Your task to perform on an android device: create a new album in the google photos Image 0: 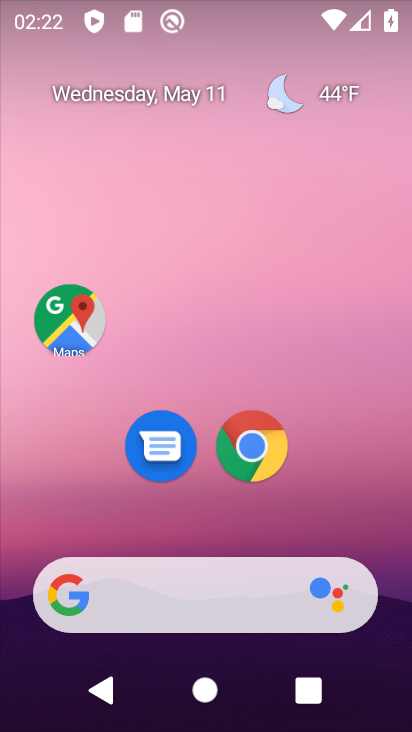
Step 0: drag from (350, 533) to (218, 173)
Your task to perform on an android device: create a new album in the google photos Image 1: 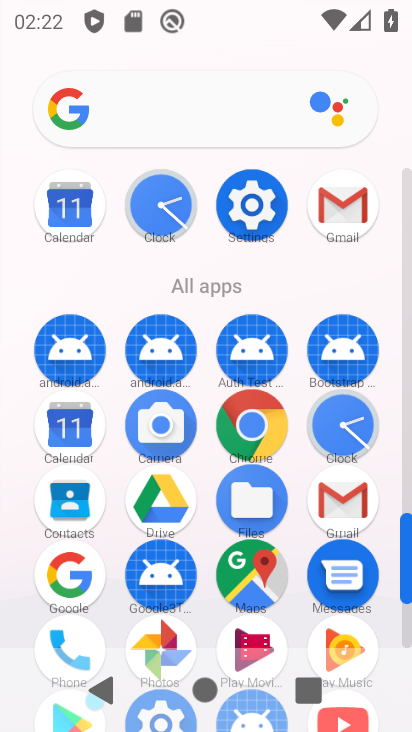
Step 1: drag from (210, 467) to (193, 260)
Your task to perform on an android device: create a new album in the google photos Image 2: 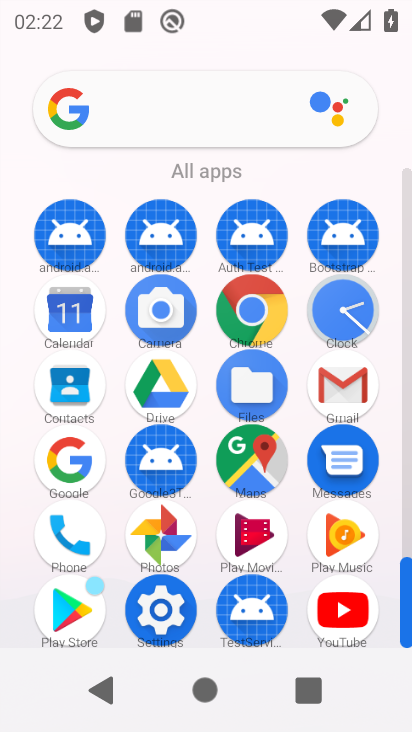
Step 2: click (165, 546)
Your task to perform on an android device: create a new album in the google photos Image 3: 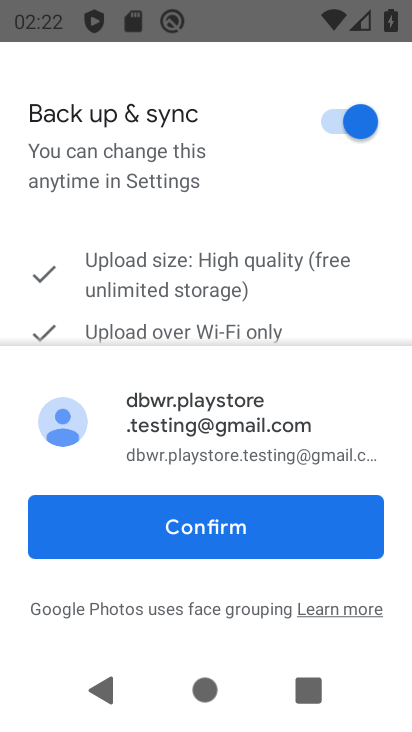
Step 3: click (232, 542)
Your task to perform on an android device: create a new album in the google photos Image 4: 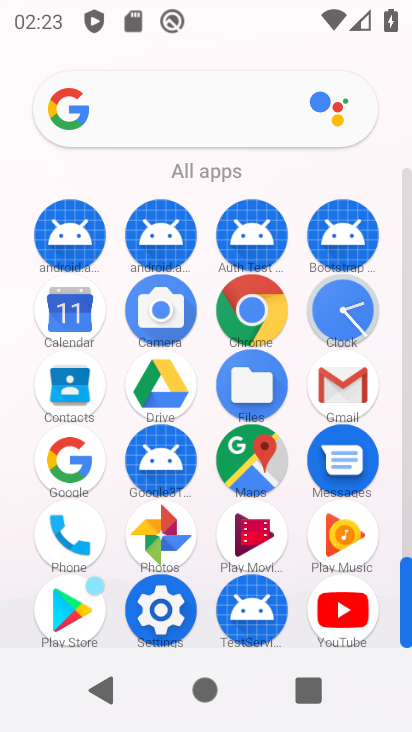
Step 4: click (174, 535)
Your task to perform on an android device: create a new album in the google photos Image 5: 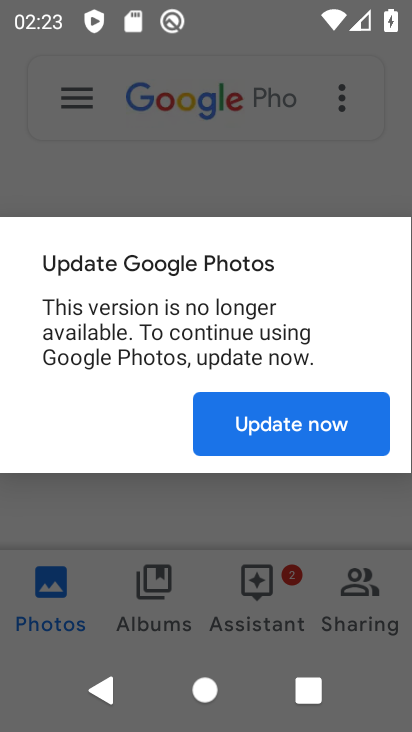
Step 5: click (318, 439)
Your task to perform on an android device: create a new album in the google photos Image 6: 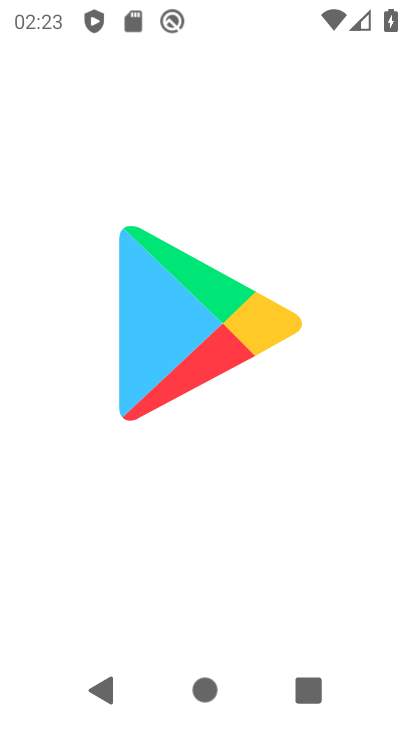
Step 6: press back button
Your task to perform on an android device: create a new album in the google photos Image 7: 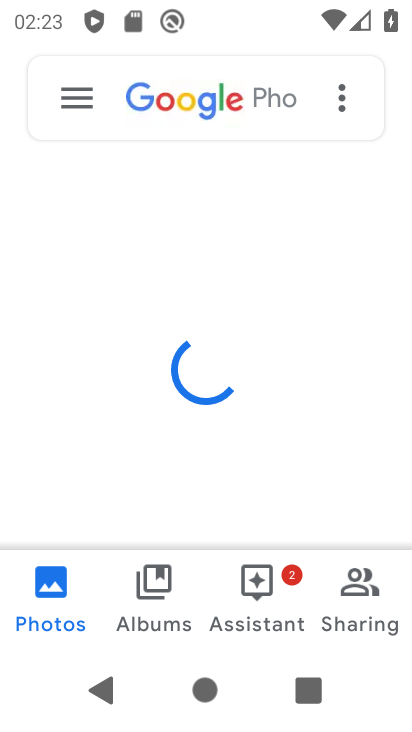
Step 7: click (163, 574)
Your task to perform on an android device: create a new album in the google photos Image 8: 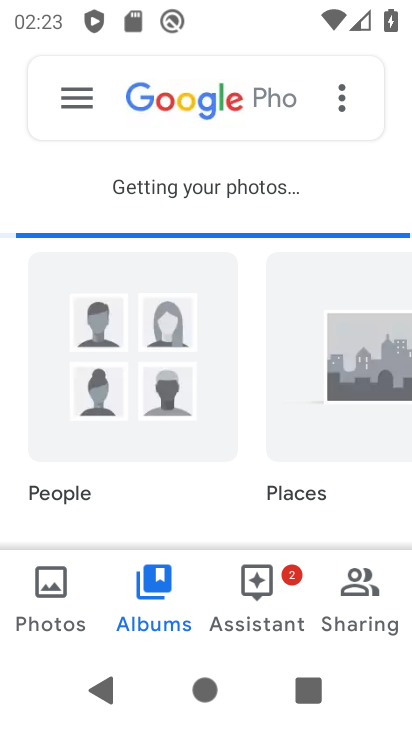
Step 8: drag from (204, 480) to (173, 107)
Your task to perform on an android device: create a new album in the google photos Image 9: 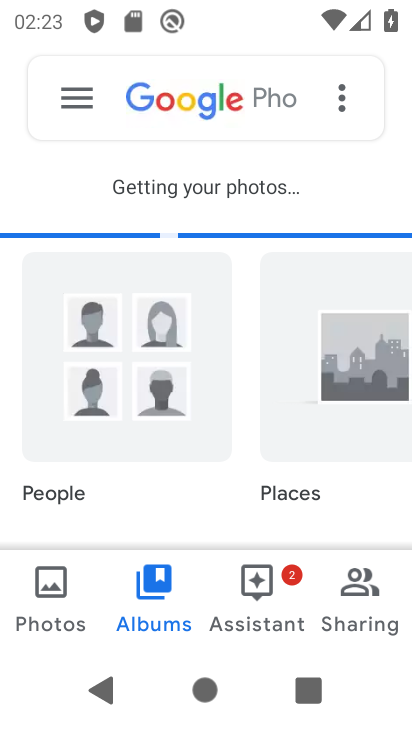
Step 9: drag from (204, 527) to (178, 95)
Your task to perform on an android device: create a new album in the google photos Image 10: 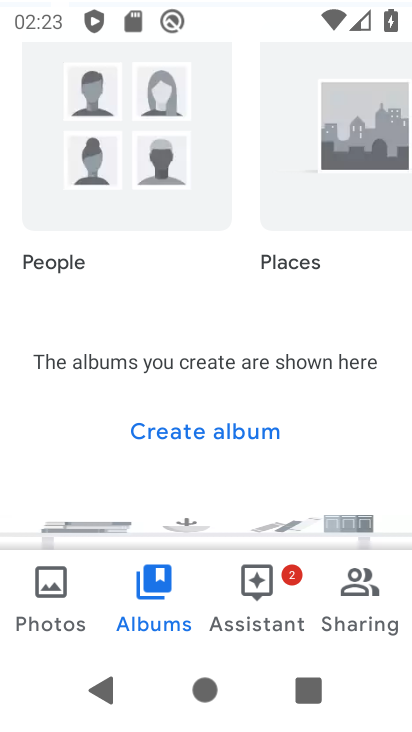
Step 10: click (184, 439)
Your task to perform on an android device: create a new album in the google photos Image 11: 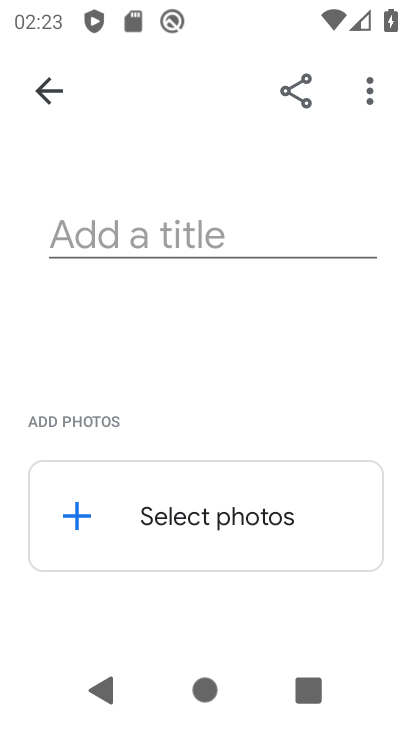
Step 11: click (138, 229)
Your task to perform on an android device: create a new album in the google photos Image 12: 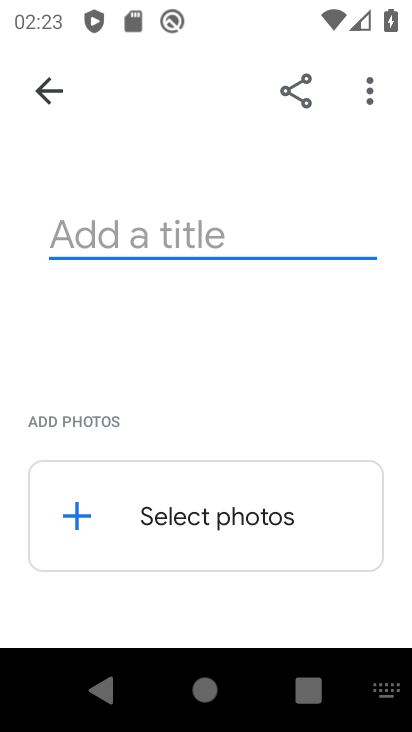
Step 12: type "jhvweh"
Your task to perform on an android device: create a new album in the google photos Image 13: 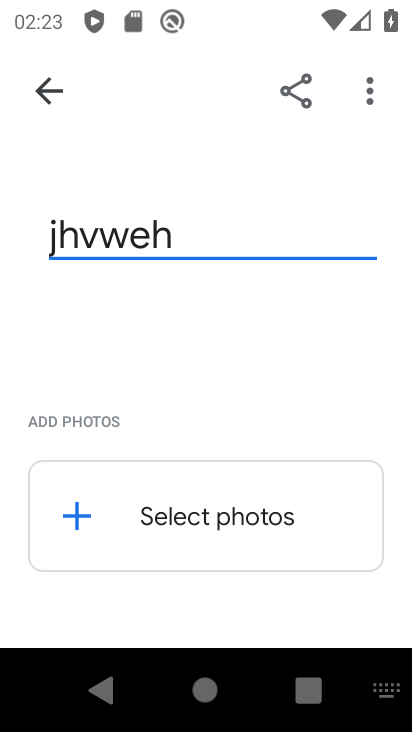
Step 13: click (344, 481)
Your task to perform on an android device: create a new album in the google photos Image 14: 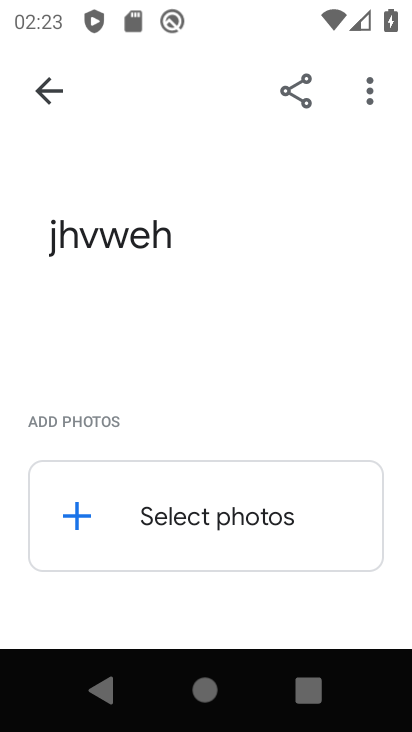
Step 14: click (344, 481)
Your task to perform on an android device: create a new album in the google photos Image 15: 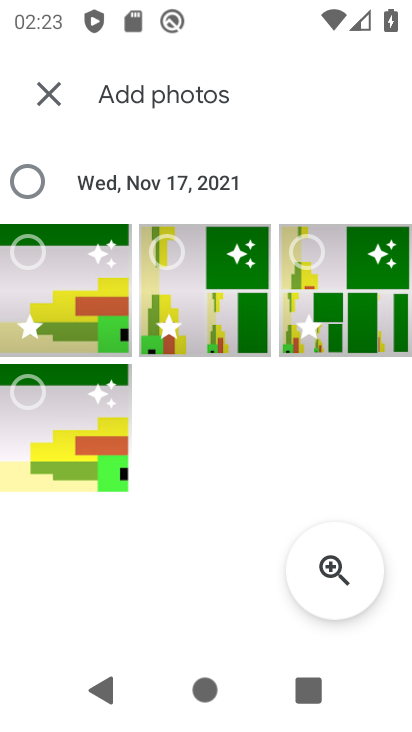
Step 15: click (36, 182)
Your task to perform on an android device: create a new album in the google photos Image 16: 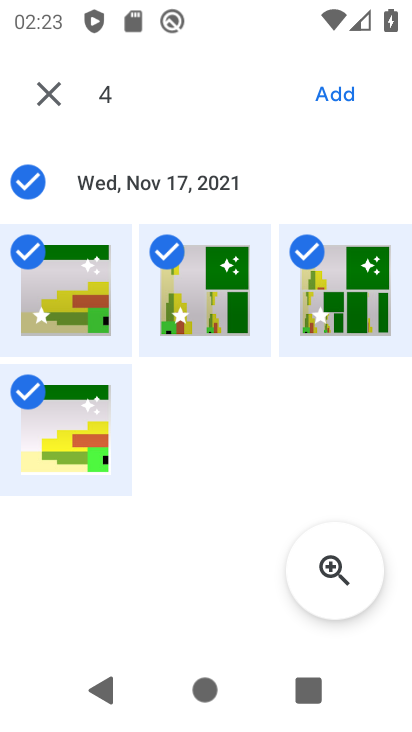
Step 16: click (330, 86)
Your task to perform on an android device: create a new album in the google photos Image 17: 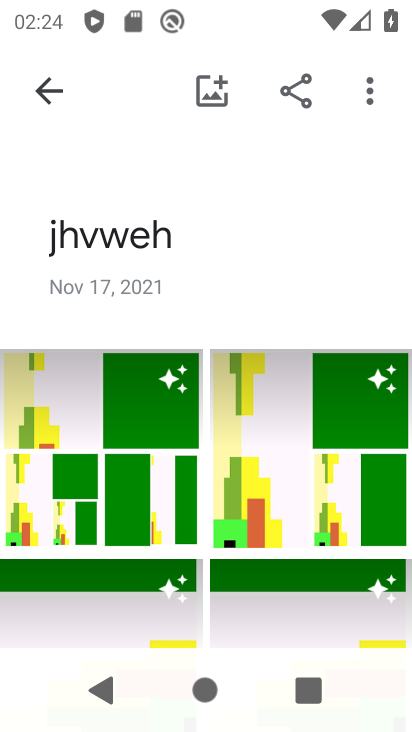
Step 17: click (308, 95)
Your task to perform on an android device: create a new album in the google photos Image 18: 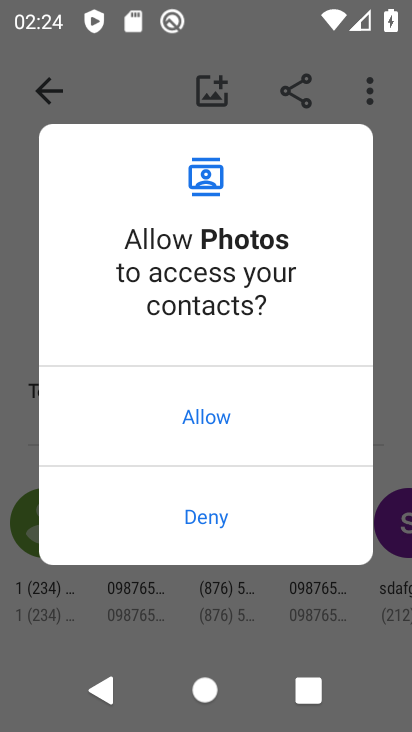
Step 18: click (252, 233)
Your task to perform on an android device: create a new album in the google photos Image 19: 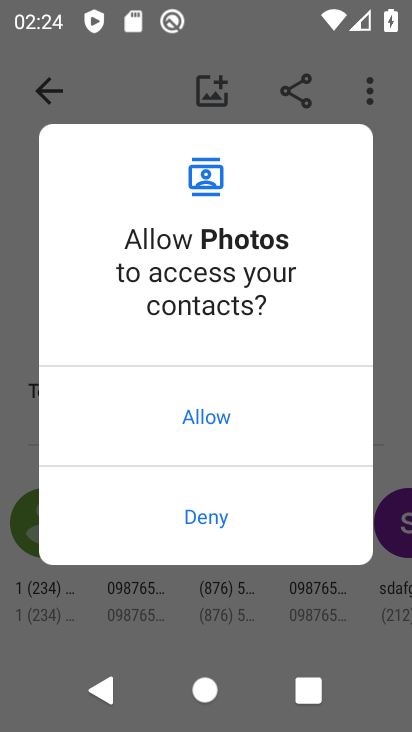
Step 19: press back button
Your task to perform on an android device: create a new album in the google photos Image 20: 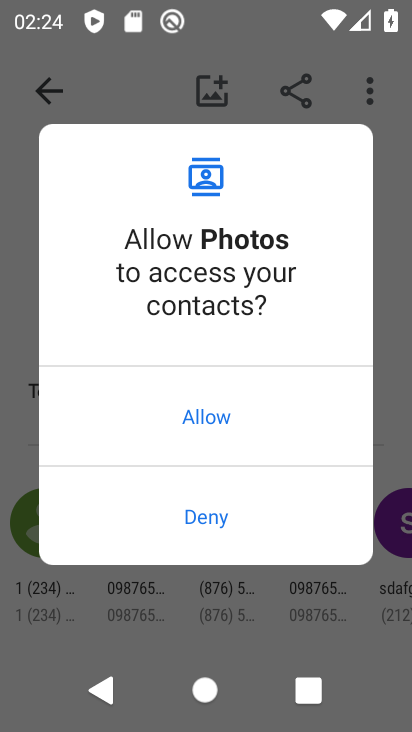
Step 20: press back button
Your task to perform on an android device: create a new album in the google photos Image 21: 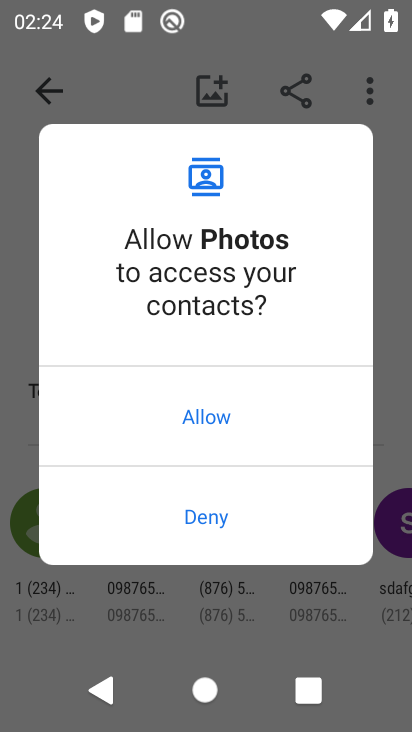
Step 21: press back button
Your task to perform on an android device: create a new album in the google photos Image 22: 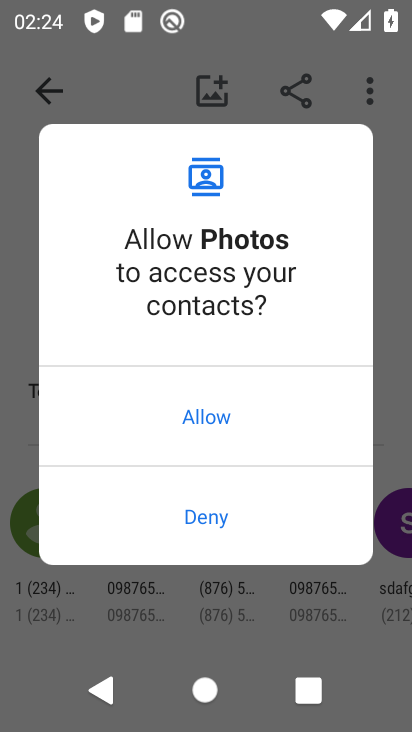
Step 22: click (203, 515)
Your task to perform on an android device: create a new album in the google photos Image 23: 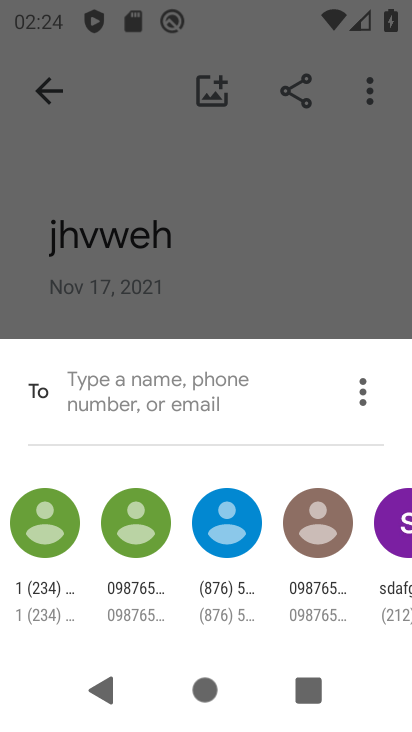
Step 23: task complete